Your task to perform on an android device: Open Amazon Image 0: 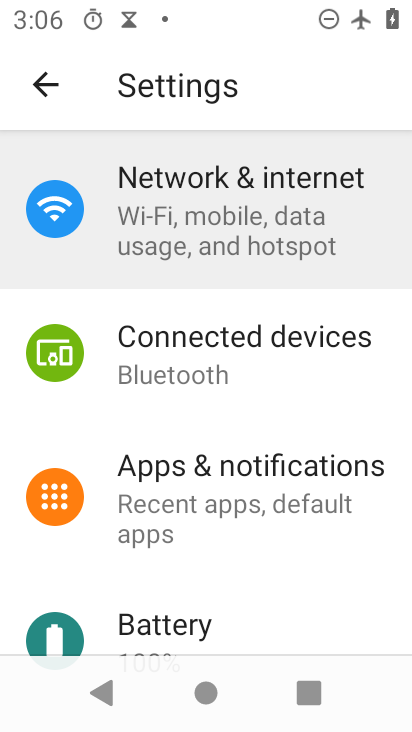
Step 0: press home button
Your task to perform on an android device: Open Amazon Image 1: 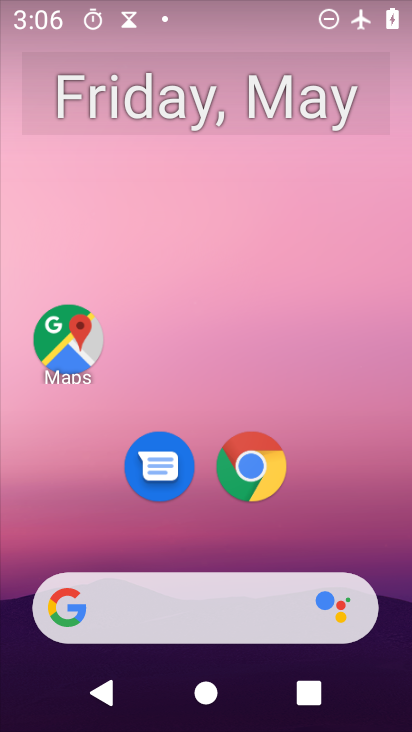
Step 1: click (259, 488)
Your task to perform on an android device: Open Amazon Image 2: 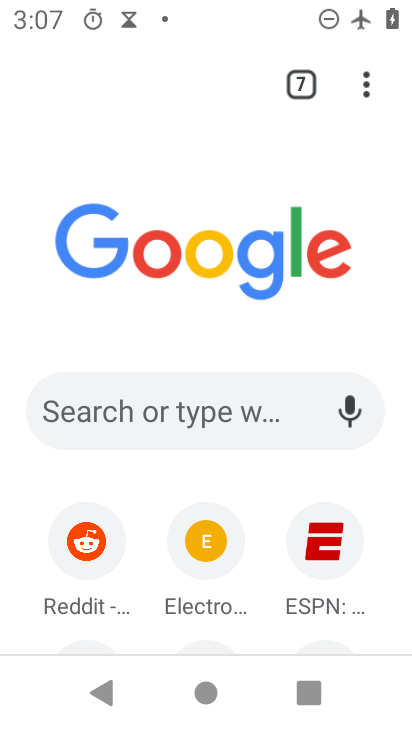
Step 2: drag from (371, 607) to (379, 148)
Your task to perform on an android device: Open Amazon Image 3: 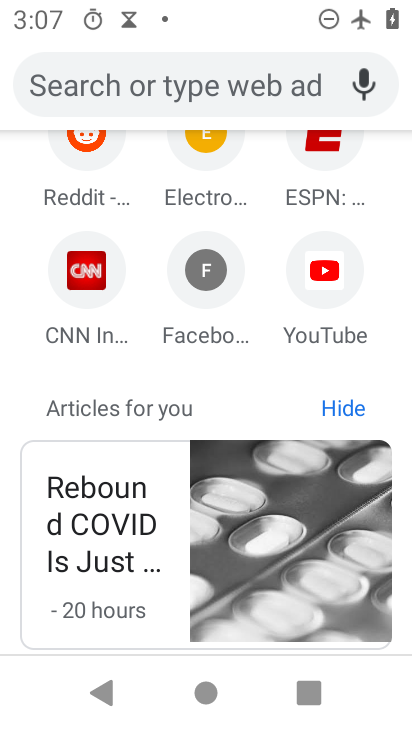
Step 3: drag from (386, 276) to (362, 622)
Your task to perform on an android device: Open Amazon Image 4: 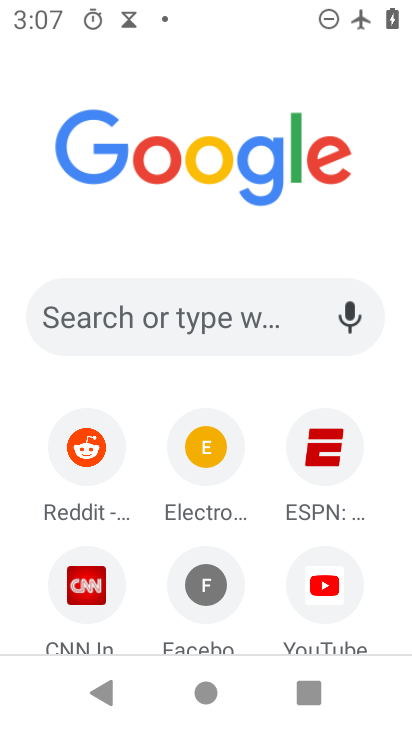
Step 4: click (219, 324)
Your task to perform on an android device: Open Amazon Image 5: 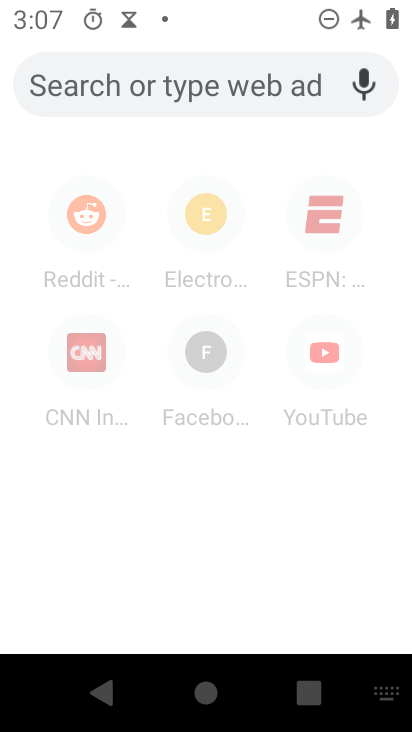
Step 5: type "amazon"
Your task to perform on an android device: Open Amazon Image 6: 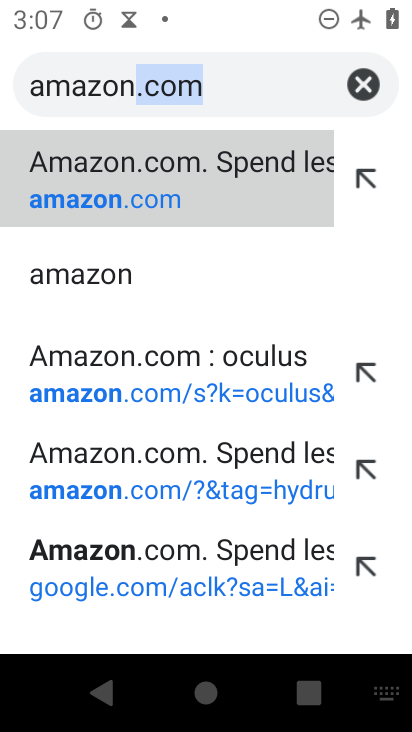
Step 6: click (150, 190)
Your task to perform on an android device: Open Amazon Image 7: 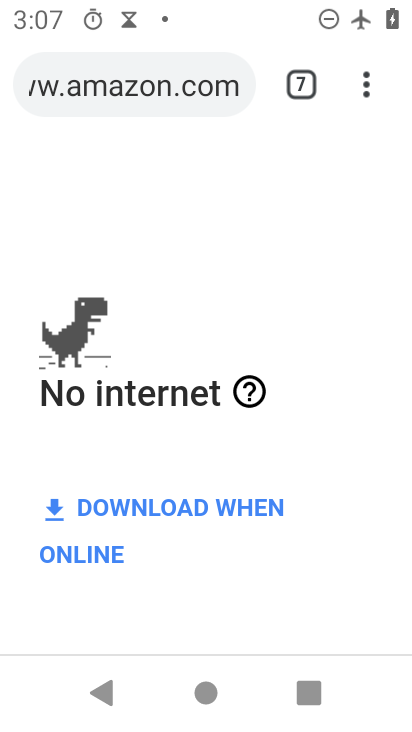
Step 7: task complete